Your task to perform on an android device: Set the phone to "Do not disturb". Image 0: 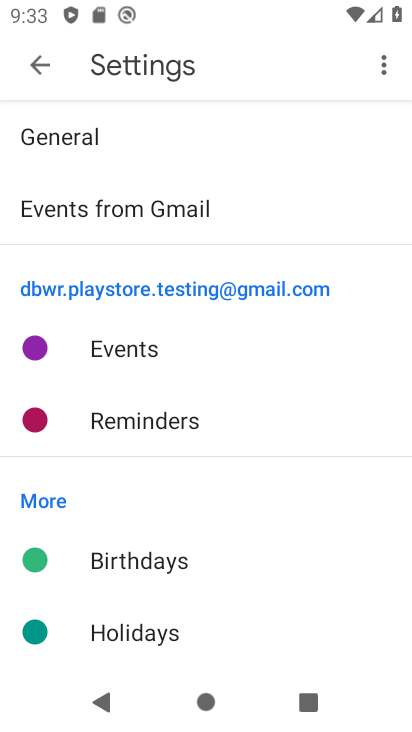
Step 0: drag from (288, 606) to (306, 441)
Your task to perform on an android device: Set the phone to "Do not disturb". Image 1: 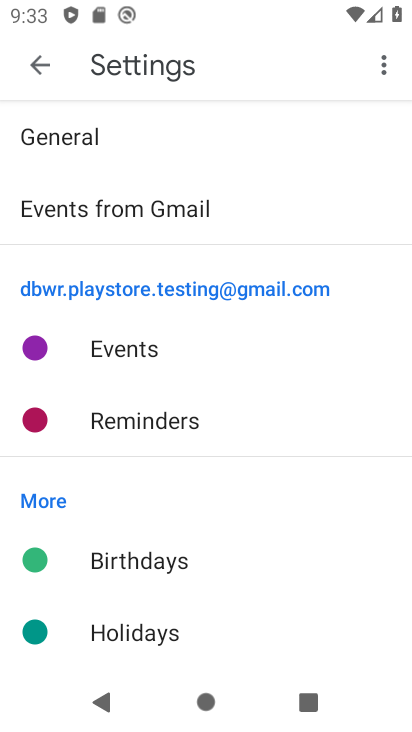
Step 1: press home button
Your task to perform on an android device: Set the phone to "Do not disturb". Image 2: 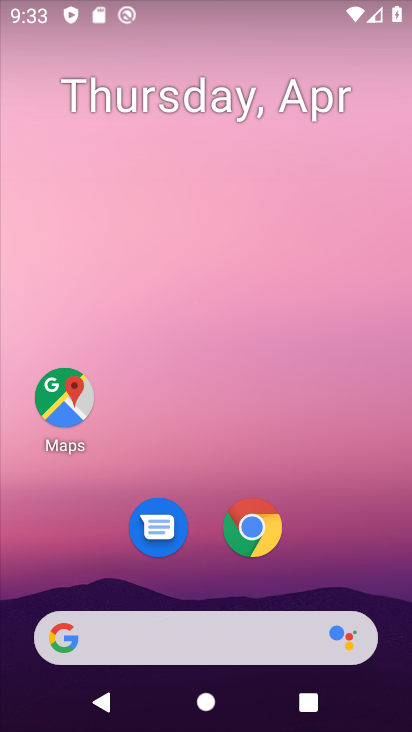
Step 2: drag from (222, 2) to (220, 552)
Your task to perform on an android device: Set the phone to "Do not disturb". Image 3: 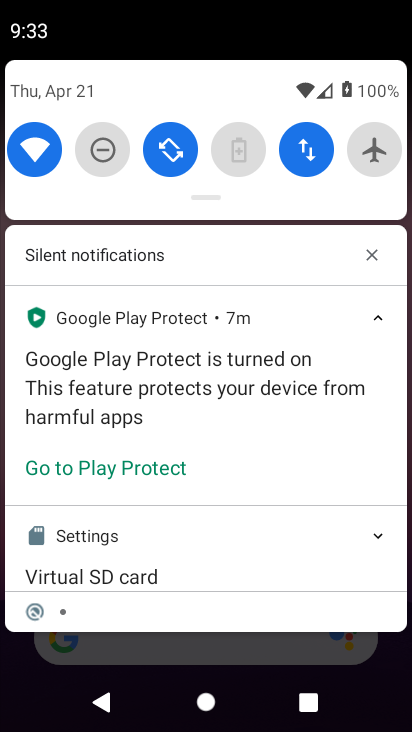
Step 3: drag from (265, 183) to (201, 594)
Your task to perform on an android device: Set the phone to "Do not disturb". Image 4: 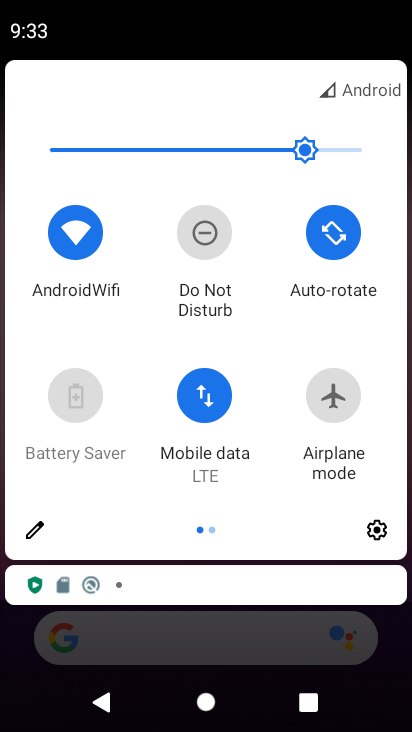
Step 4: click (210, 229)
Your task to perform on an android device: Set the phone to "Do not disturb". Image 5: 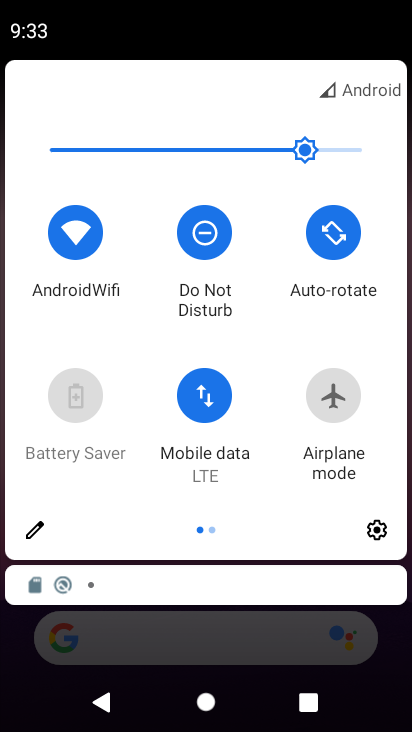
Step 5: task complete